Your task to perform on an android device: Go to battery settings Image 0: 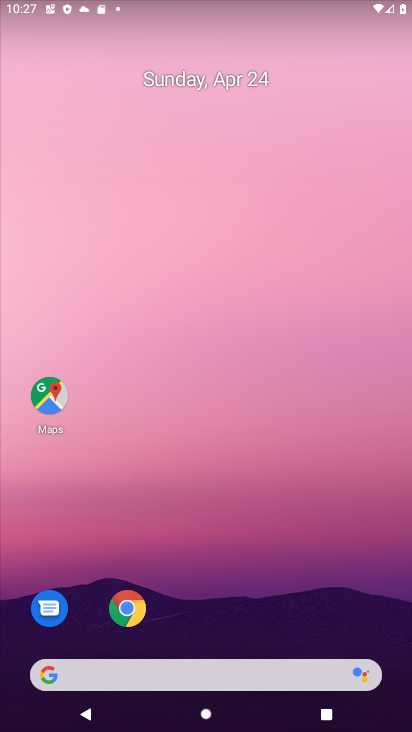
Step 0: drag from (246, 584) to (259, 62)
Your task to perform on an android device: Go to battery settings Image 1: 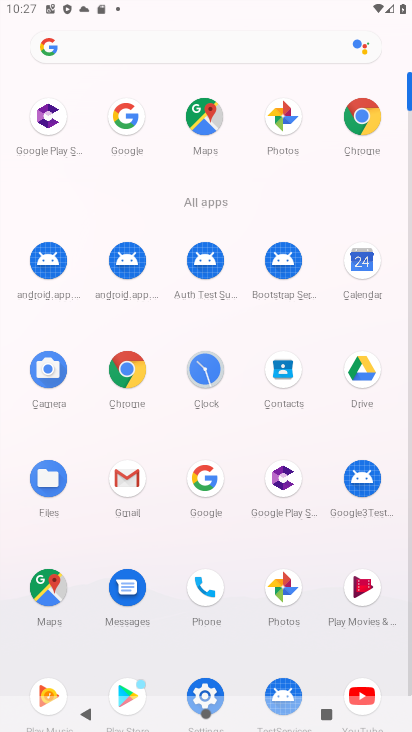
Step 1: click (203, 686)
Your task to perform on an android device: Go to battery settings Image 2: 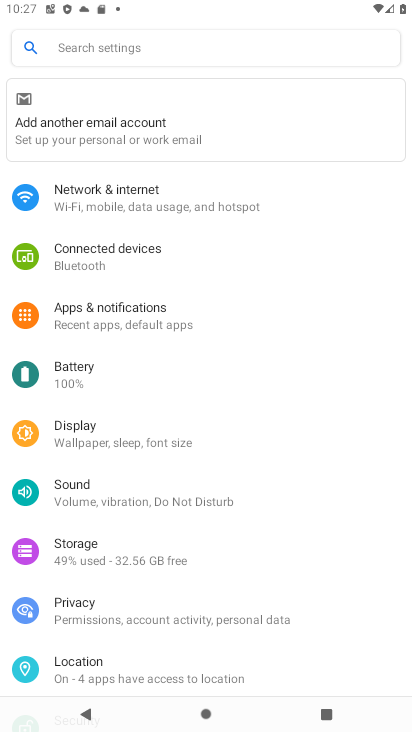
Step 2: drag from (176, 529) to (205, 270)
Your task to perform on an android device: Go to battery settings Image 3: 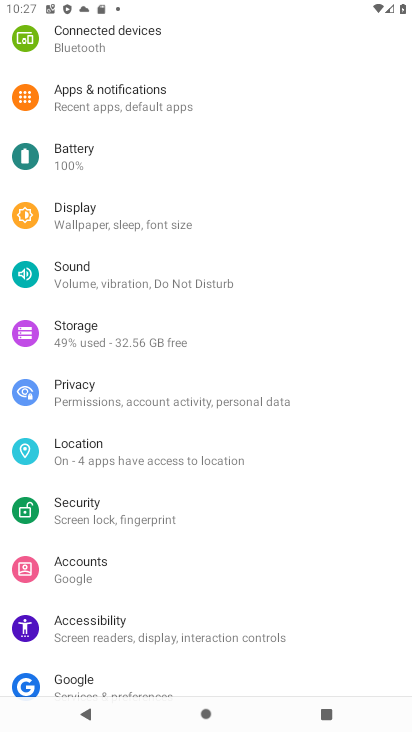
Step 3: click (77, 156)
Your task to perform on an android device: Go to battery settings Image 4: 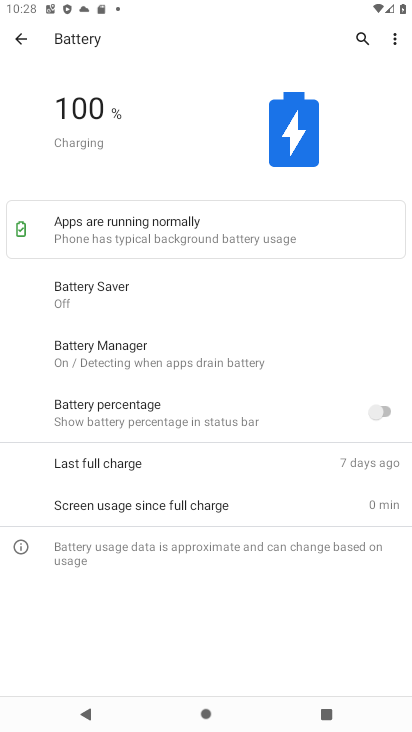
Step 4: task complete